Your task to perform on an android device: open chrome and create a bookmark for the current page Image 0: 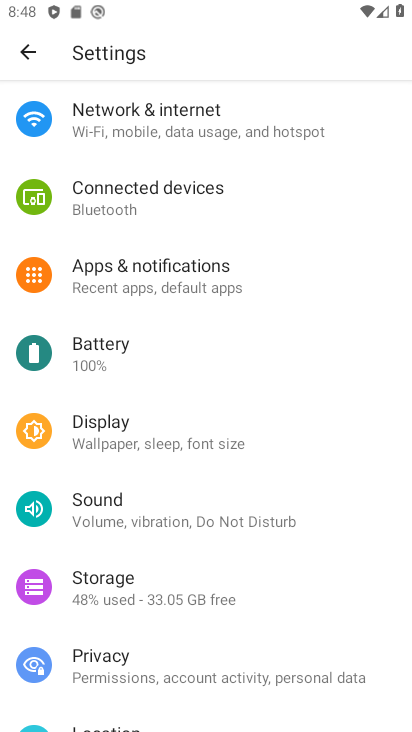
Step 0: press home button
Your task to perform on an android device: open chrome and create a bookmark for the current page Image 1: 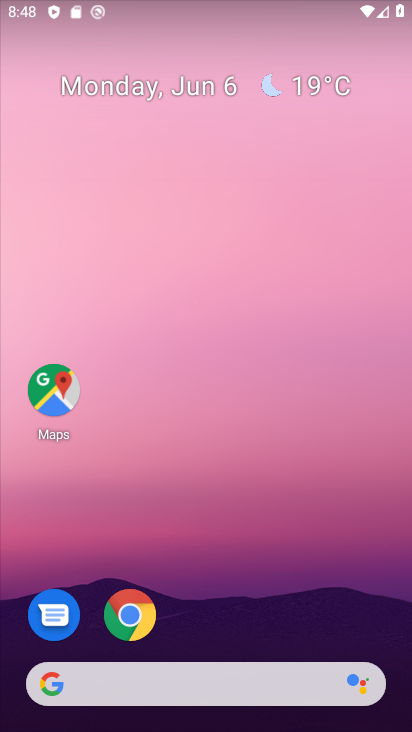
Step 1: click (137, 630)
Your task to perform on an android device: open chrome and create a bookmark for the current page Image 2: 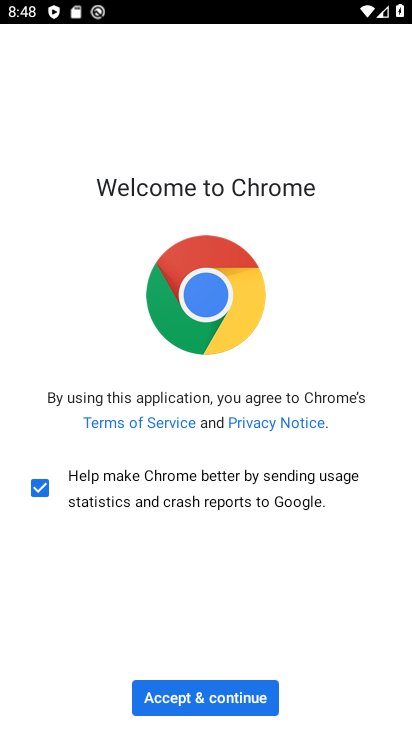
Step 2: click (234, 702)
Your task to perform on an android device: open chrome and create a bookmark for the current page Image 3: 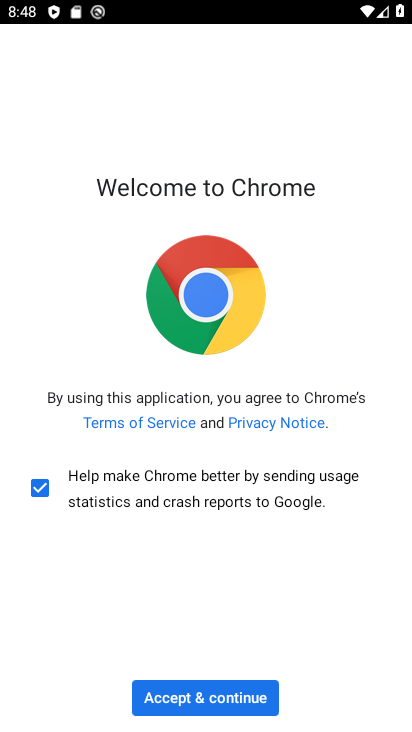
Step 3: click (234, 702)
Your task to perform on an android device: open chrome and create a bookmark for the current page Image 4: 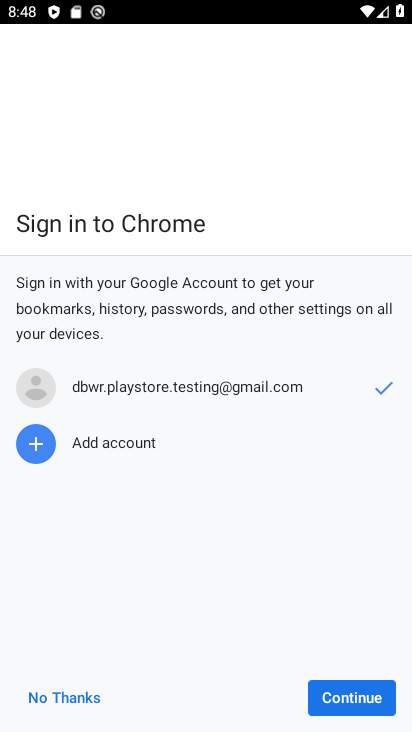
Step 4: click (328, 700)
Your task to perform on an android device: open chrome and create a bookmark for the current page Image 5: 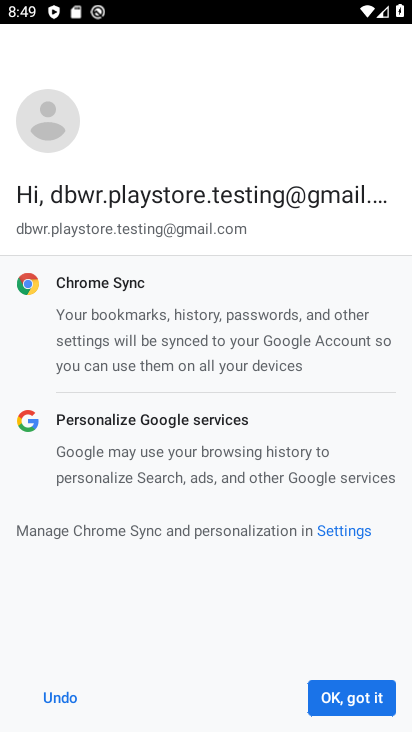
Step 5: click (328, 700)
Your task to perform on an android device: open chrome and create a bookmark for the current page Image 6: 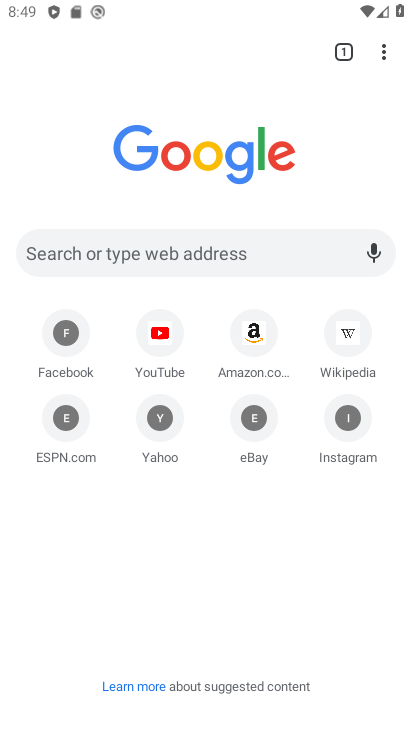
Step 6: click (386, 60)
Your task to perform on an android device: open chrome and create a bookmark for the current page Image 7: 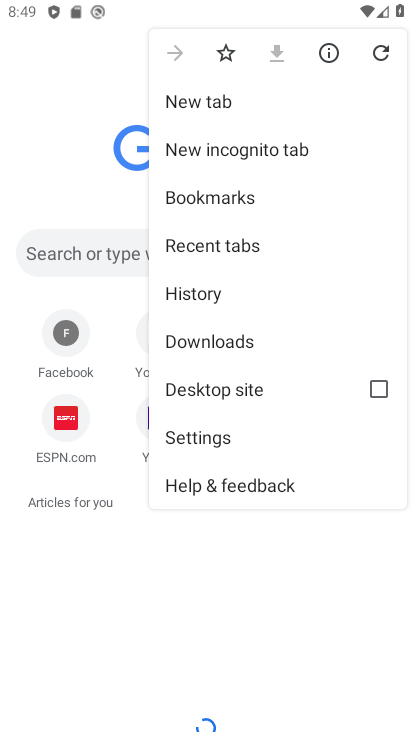
Step 7: click (230, 55)
Your task to perform on an android device: open chrome and create a bookmark for the current page Image 8: 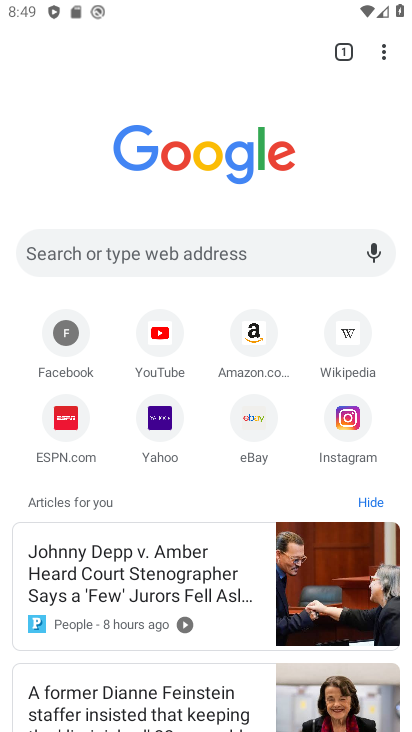
Step 8: task complete